Your task to perform on an android device: turn on location history Image 0: 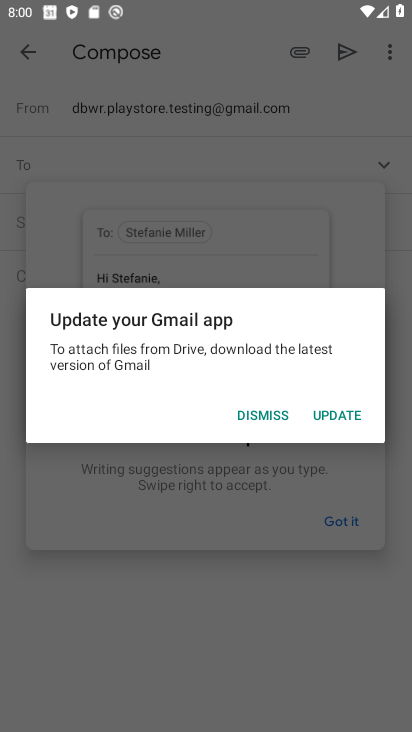
Step 0: press home button
Your task to perform on an android device: turn on location history Image 1: 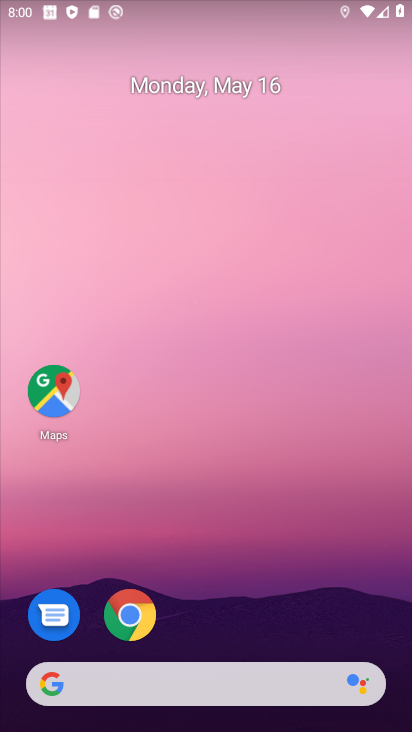
Step 1: drag from (227, 630) to (332, 0)
Your task to perform on an android device: turn on location history Image 2: 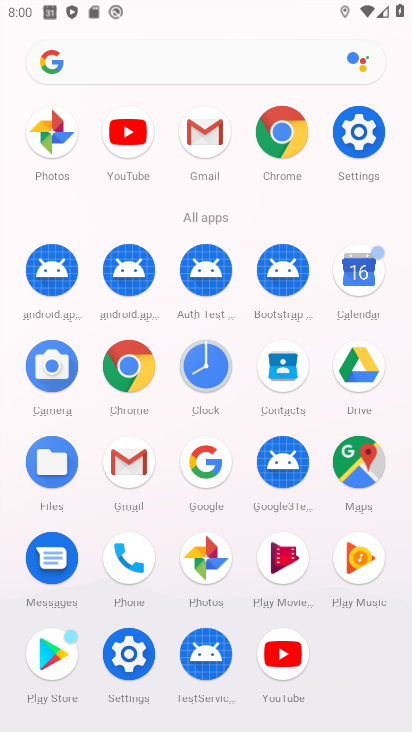
Step 2: click (367, 148)
Your task to perform on an android device: turn on location history Image 3: 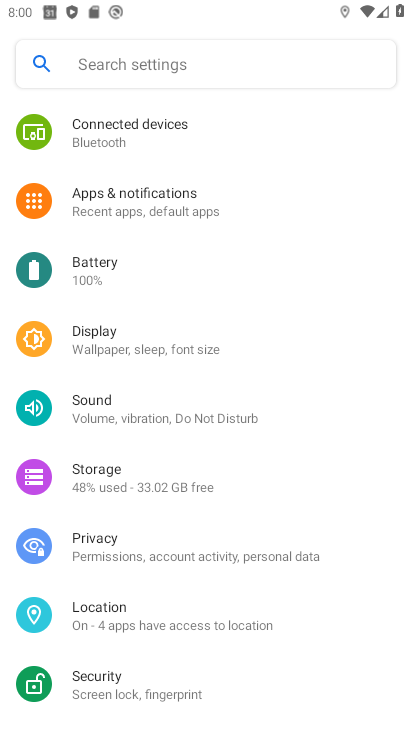
Step 3: click (90, 602)
Your task to perform on an android device: turn on location history Image 4: 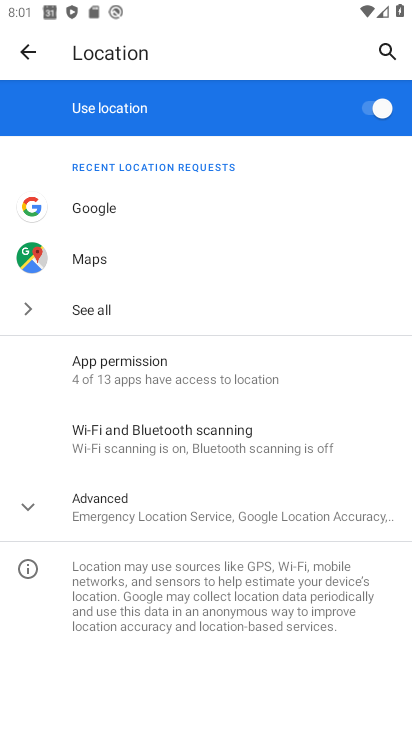
Step 4: click (194, 497)
Your task to perform on an android device: turn on location history Image 5: 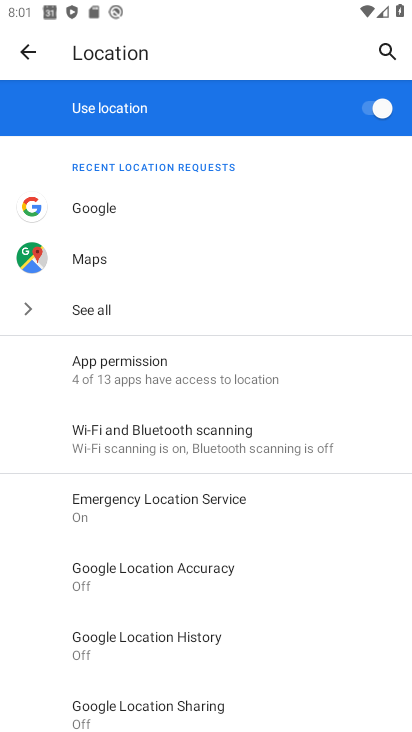
Step 5: click (182, 656)
Your task to perform on an android device: turn on location history Image 6: 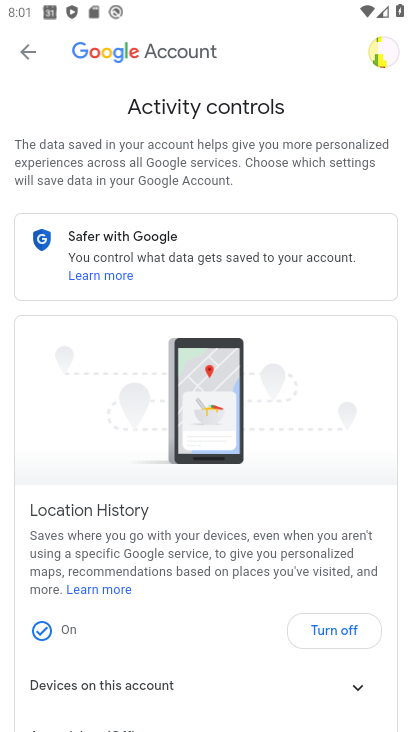
Step 6: task complete